Your task to perform on an android device: turn off notifications in google photos Image 0: 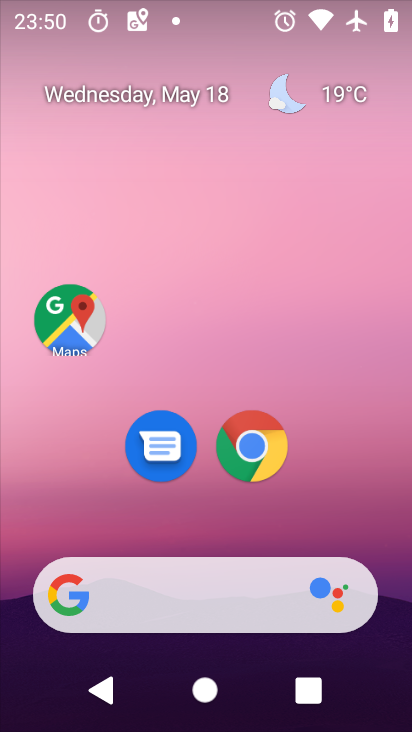
Step 0: drag from (207, 588) to (326, 130)
Your task to perform on an android device: turn off notifications in google photos Image 1: 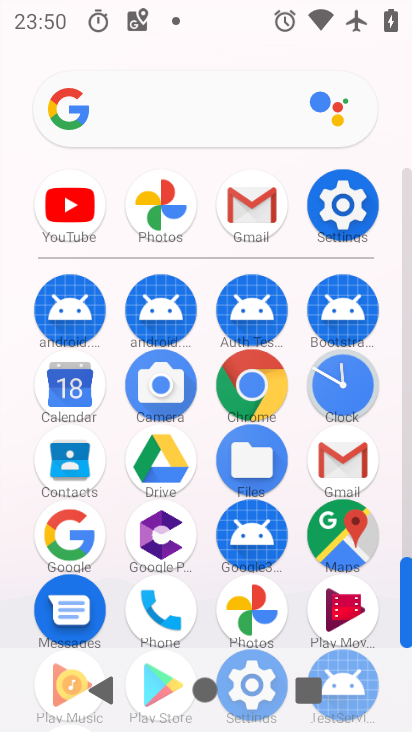
Step 1: click (254, 613)
Your task to perform on an android device: turn off notifications in google photos Image 2: 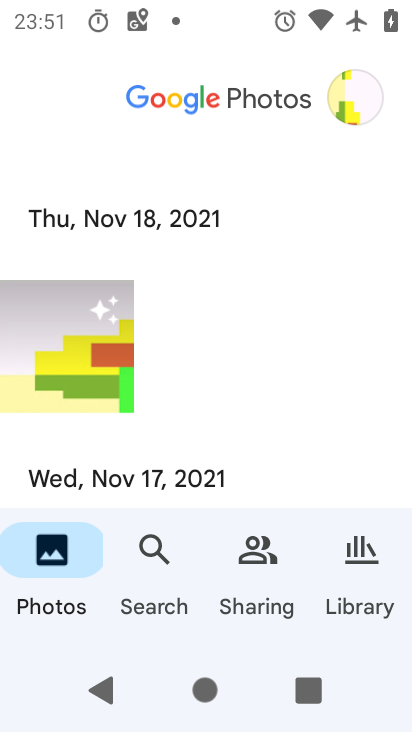
Step 2: click (355, 99)
Your task to perform on an android device: turn off notifications in google photos Image 3: 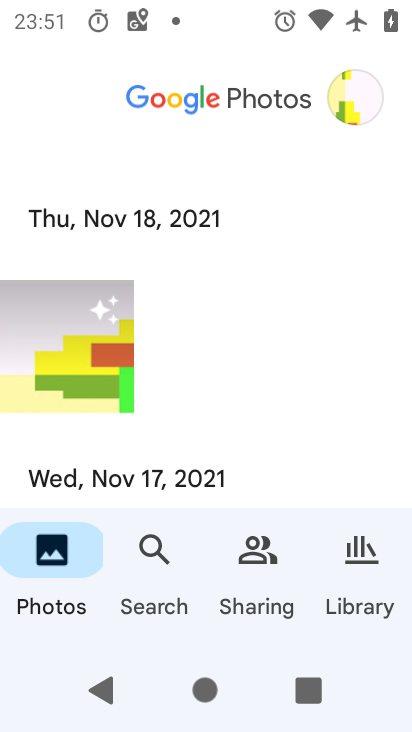
Step 3: click (355, 109)
Your task to perform on an android device: turn off notifications in google photos Image 4: 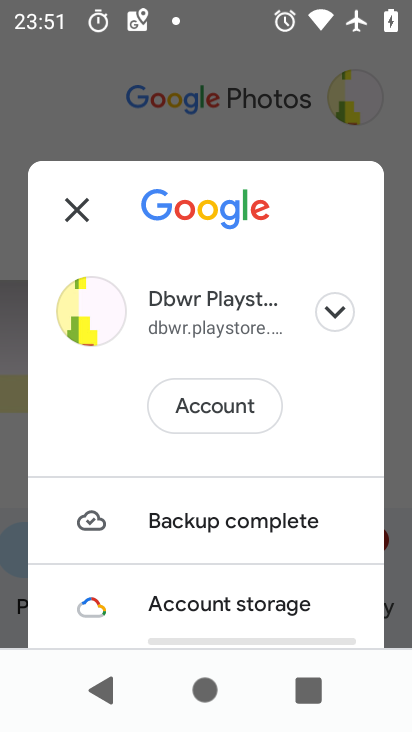
Step 4: drag from (186, 567) to (342, 180)
Your task to perform on an android device: turn off notifications in google photos Image 5: 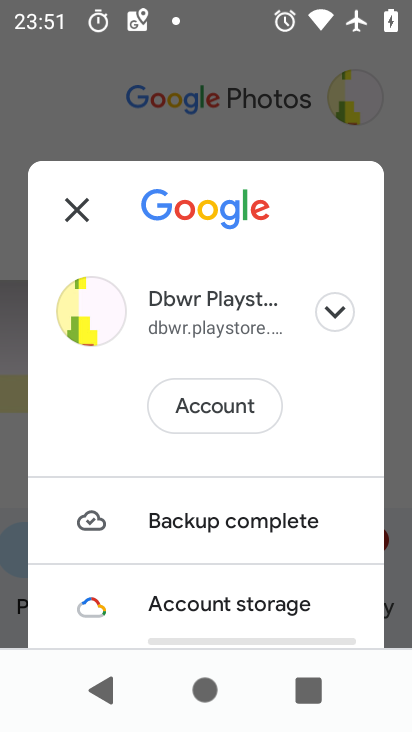
Step 5: drag from (203, 605) to (303, 221)
Your task to perform on an android device: turn off notifications in google photos Image 6: 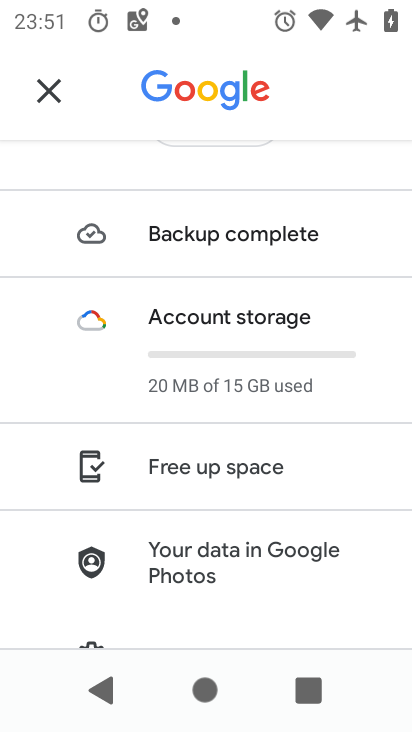
Step 6: drag from (232, 579) to (345, 221)
Your task to perform on an android device: turn off notifications in google photos Image 7: 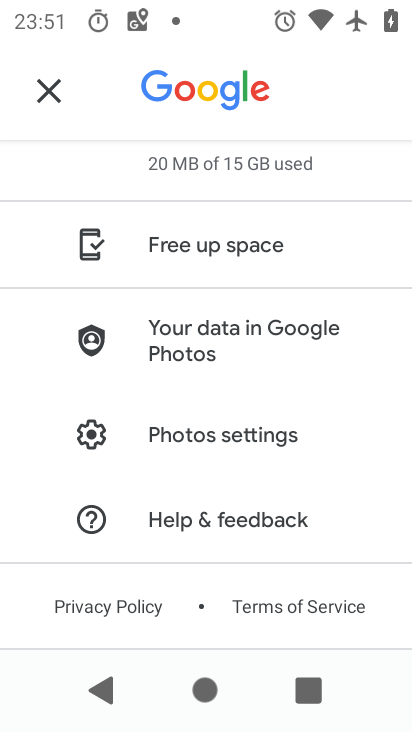
Step 7: click (235, 435)
Your task to perform on an android device: turn off notifications in google photos Image 8: 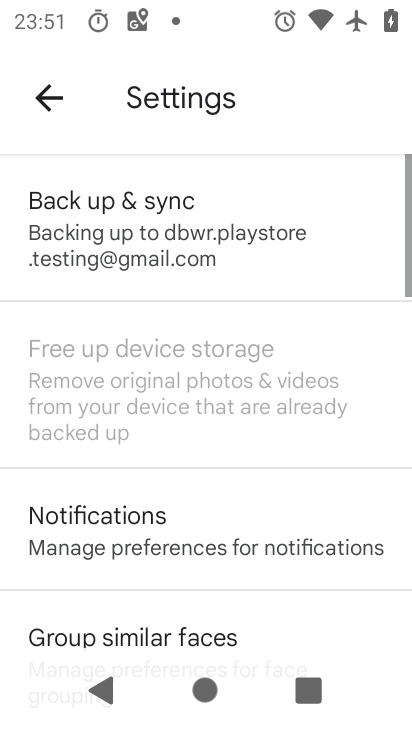
Step 8: click (133, 525)
Your task to perform on an android device: turn off notifications in google photos Image 9: 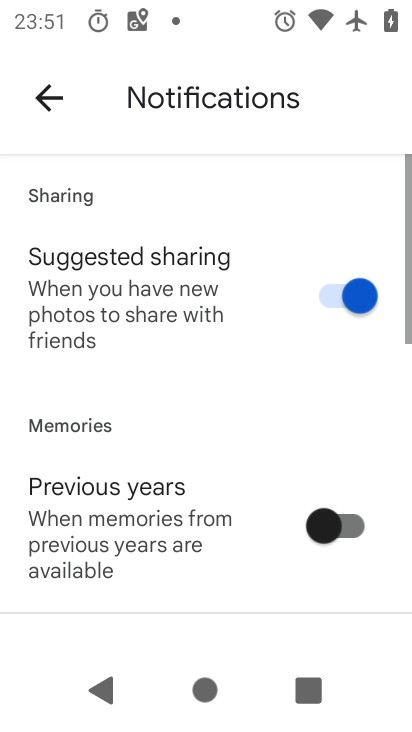
Step 9: drag from (167, 526) to (350, 70)
Your task to perform on an android device: turn off notifications in google photos Image 10: 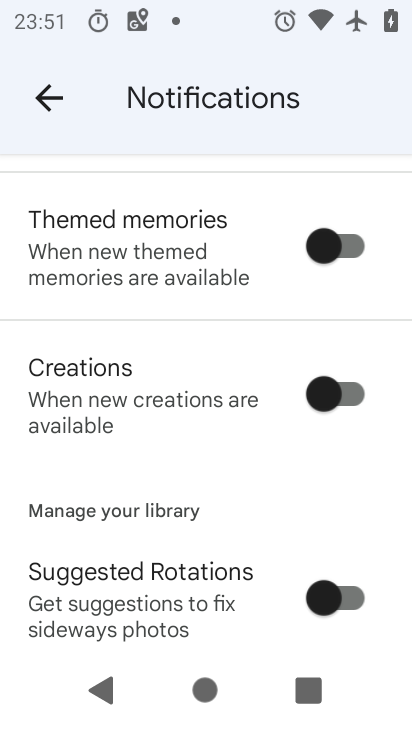
Step 10: drag from (210, 571) to (372, 68)
Your task to perform on an android device: turn off notifications in google photos Image 11: 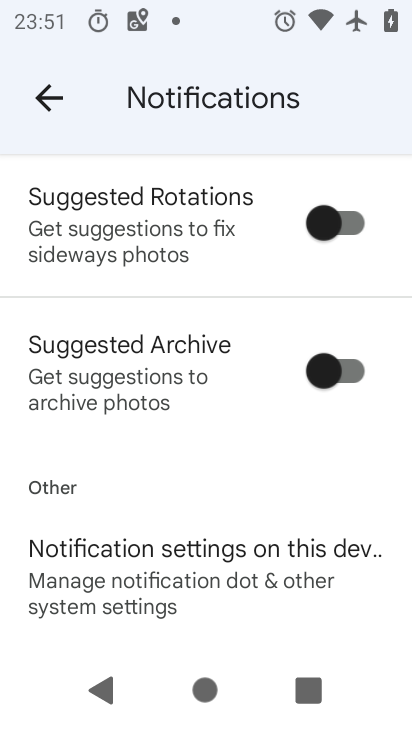
Step 11: click (194, 579)
Your task to perform on an android device: turn off notifications in google photos Image 12: 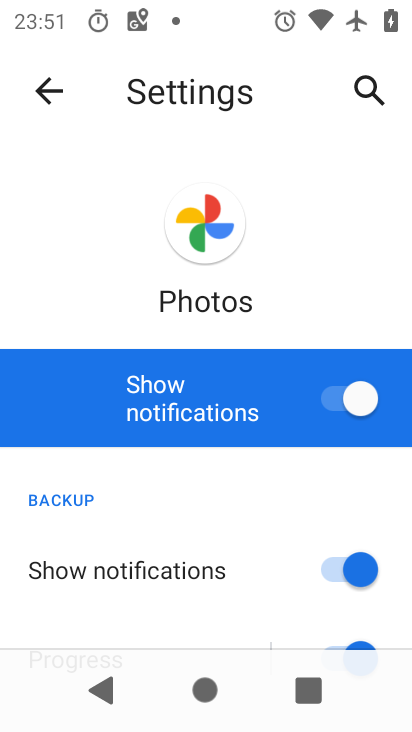
Step 12: click (344, 400)
Your task to perform on an android device: turn off notifications in google photos Image 13: 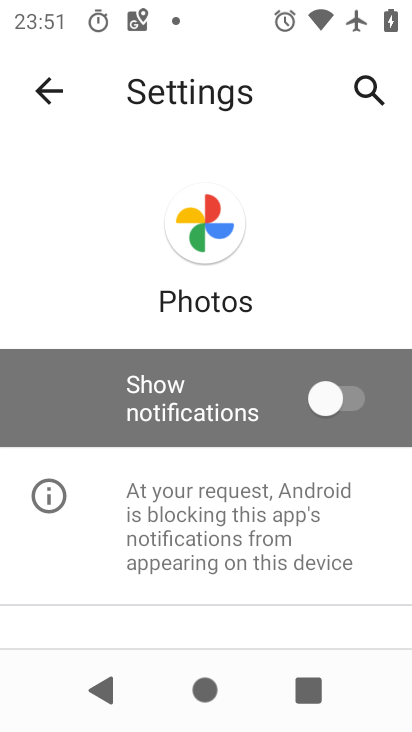
Step 13: task complete